Your task to perform on an android device: check out phone information Image 0: 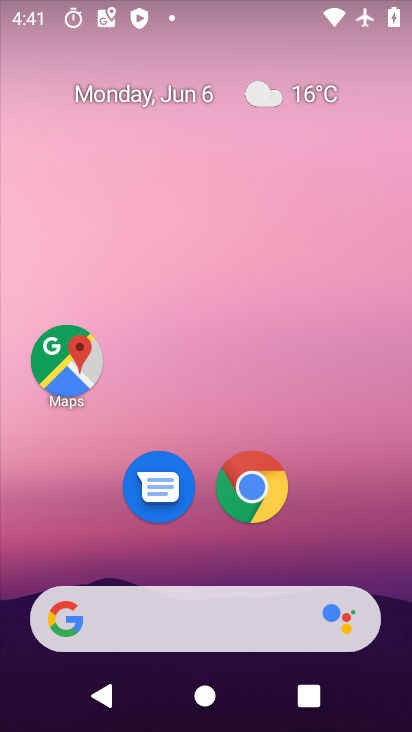
Step 0: drag from (318, 482) to (235, 68)
Your task to perform on an android device: check out phone information Image 1: 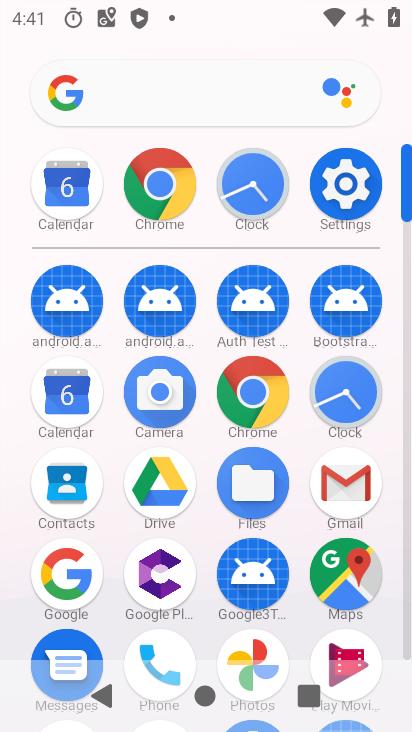
Step 1: click (349, 185)
Your task to perform on an android device: check out phone information Image 2: 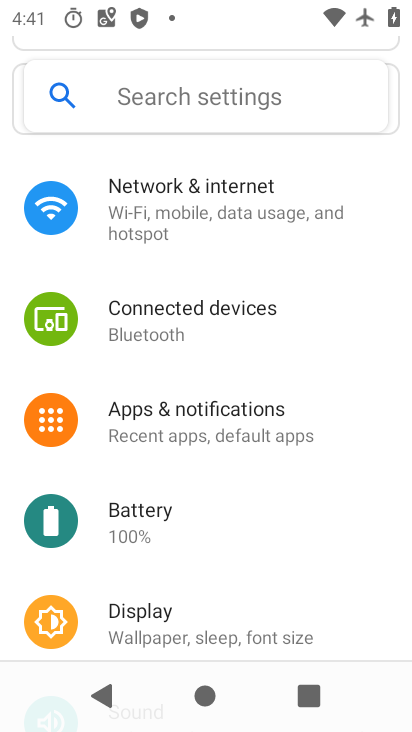
Step 2: drag from (226, 551) to (243, 161)
Your task to perform on an android device: check out phone information Image 3: 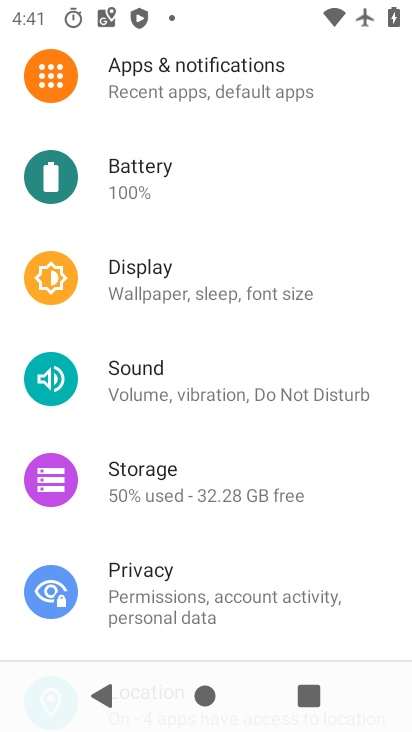
Step 3: drag from (225, 560) to (282, 175)
Your task to perform on an android device: check out phone information Image 4: 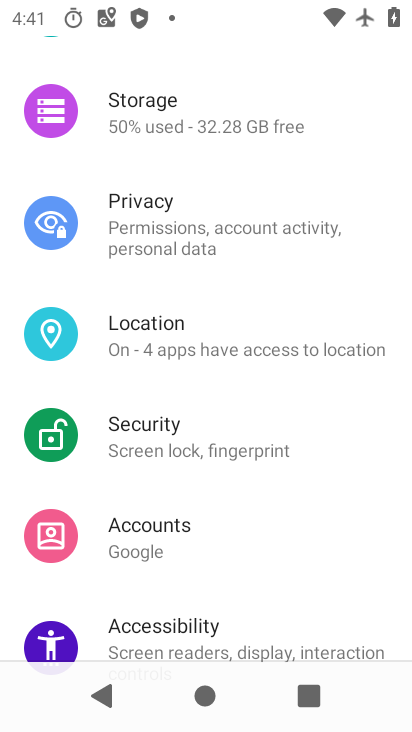
Step 4: drag from (219, 490) to (277, 169)
Your task to perform on an android device: check out phone information Image 5: 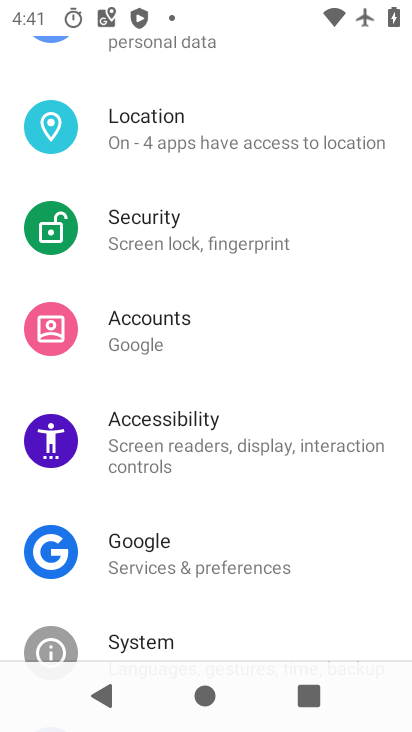
Step 5: drag from (249, 201) to (241, 595)
Your task to perform on an android device: check out phone information Image 6: 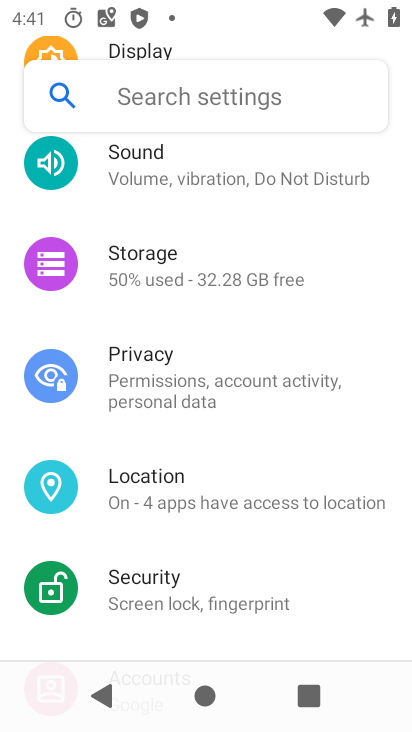
Step 6: drag from (211, 303) to (243, 639)
Your task to perform on an android device: check out phone information Image 7: 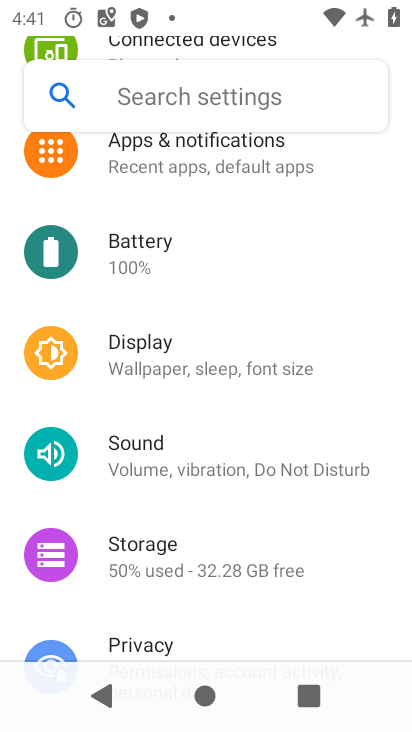
Step 7: drag from (242, 593) to (280, 193)
Your task to perform on an android device: check out phone information Image 8: 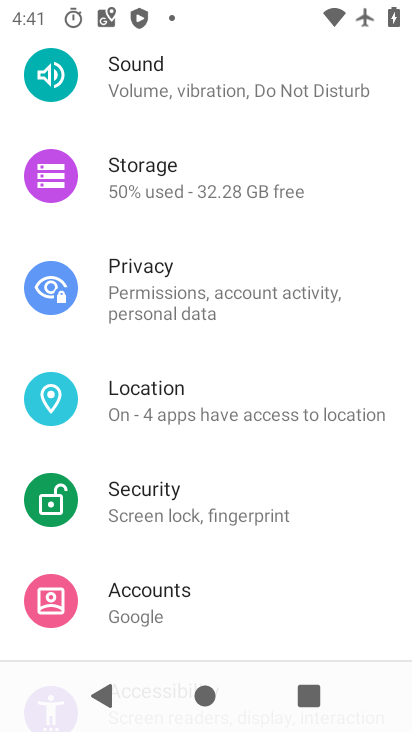
Step 8: drag from (290, 521) to (305, 50)
Your task to perform on an android device: check out phone information Image 9: 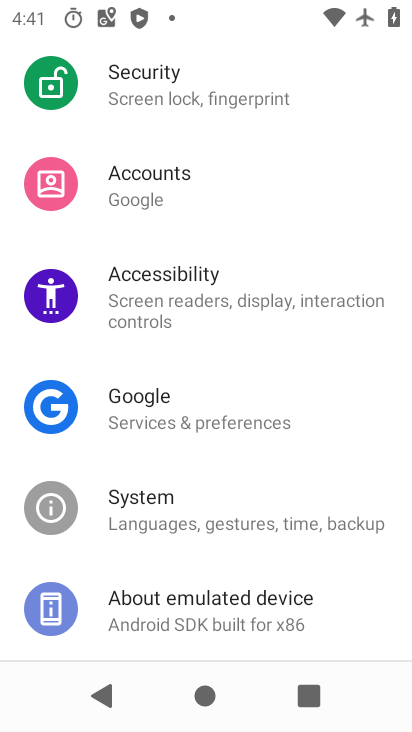
Step 9: drag from (212, 444) to (247, 139)
Your task to perform on an android device: check out phone information Image 10: 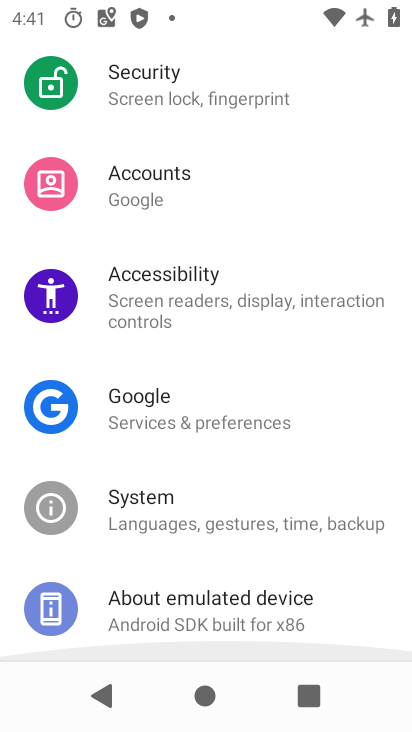
Step 10: drag from (240, 130) to (197, 600)
Your task to perform on an android device: check out phone information Image 11: 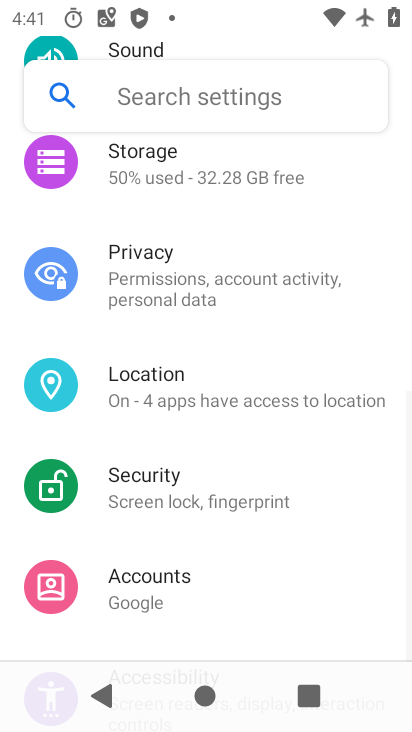
Step 11: drag from (181, 249) to (200, 606)
Your task to perform on an android device: check out phone information Image 12: 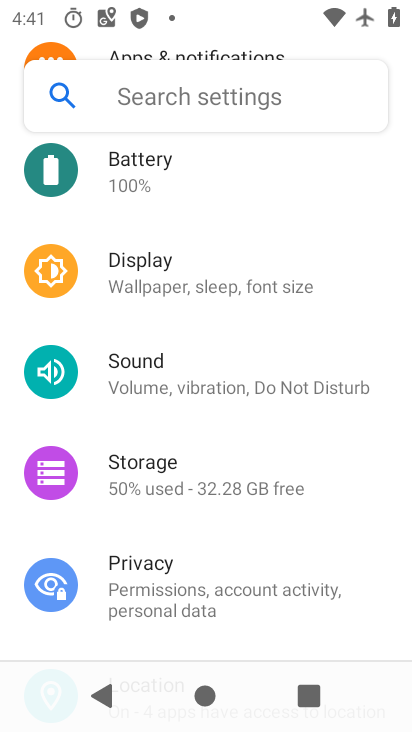
Step 12: press home button
Your task to perform on an android device: check out phone information Image 13: 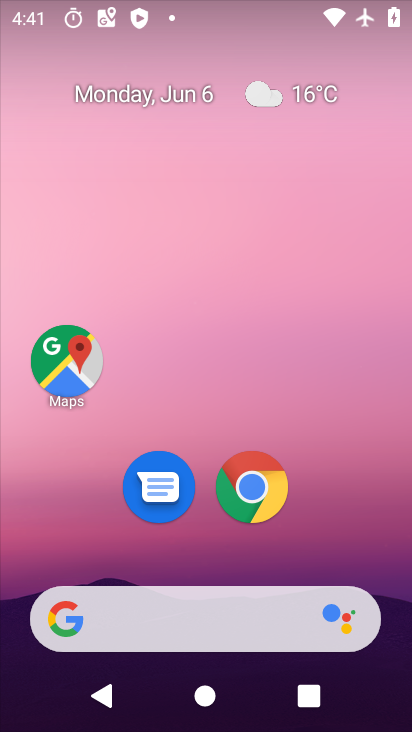
Step 13: drag from (340, 484) to (336, 80)
Your task to perform on an android device: check out phone information Image 14: 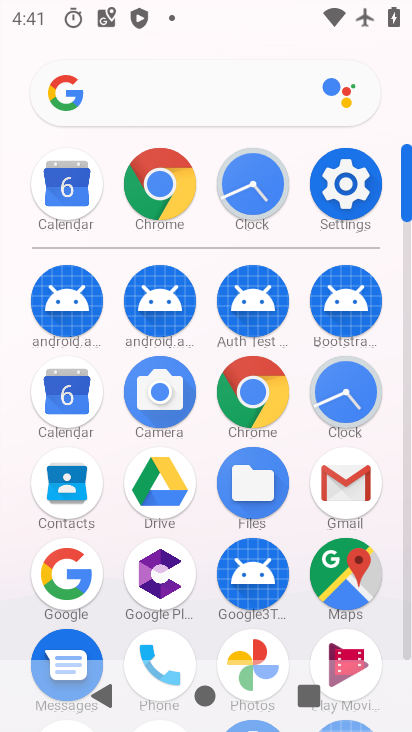
Step 14: click (162, 633)
Your task to perform on an android device: check out phone information Image 15: 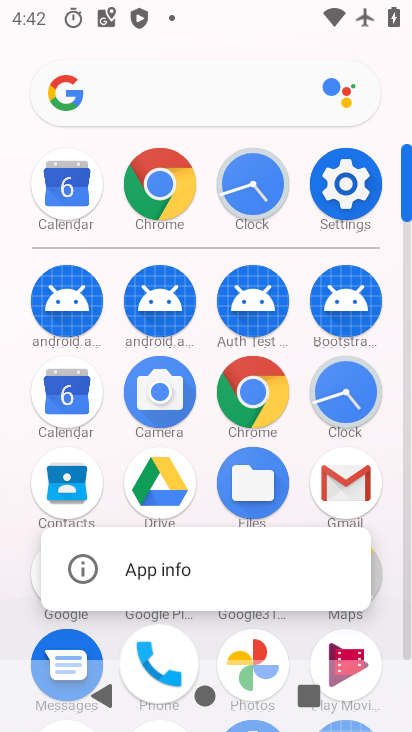
Step 15: click (200, 573)
Your task to perform on an android device: check out phone information Image 16: 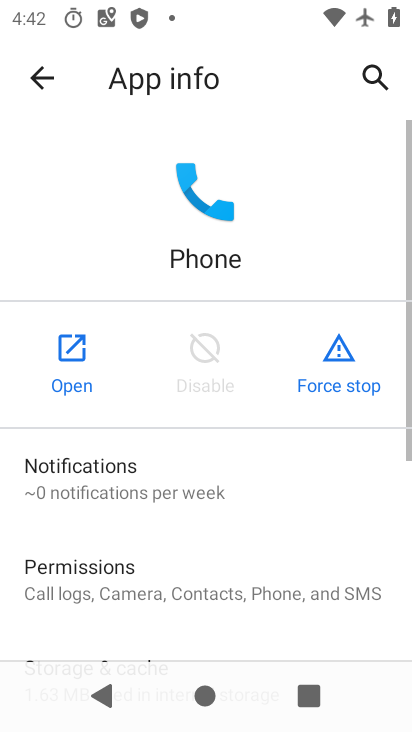
Step 16: task complete